Your task to perform on an android device: find snoozed emails in the gmail app Image 0: 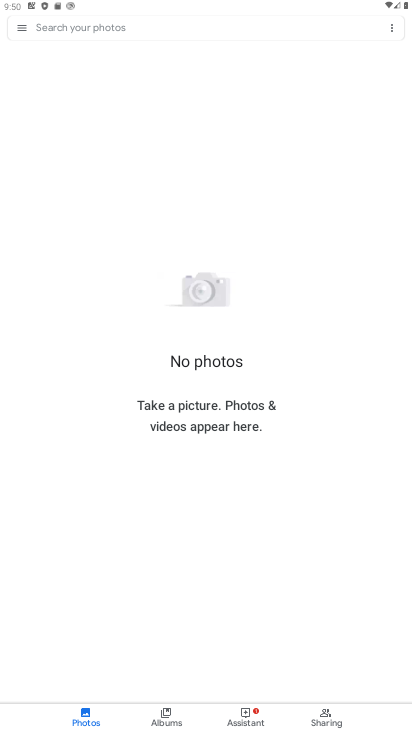
Step 0: press home button
Your task to perform on an android device: find snoozed emails in the gmail app Image 1: 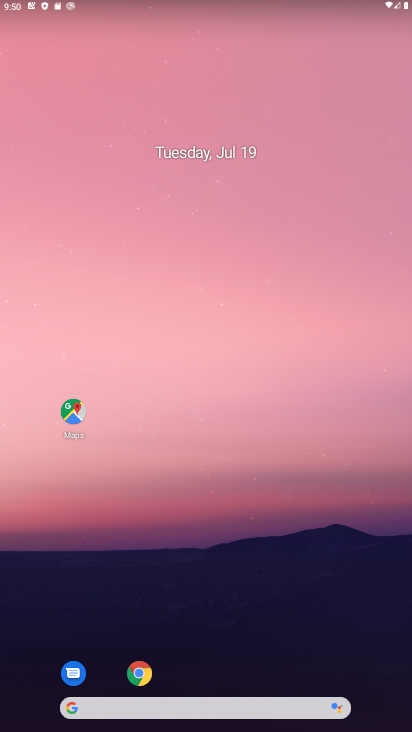
Step 1: drag from (235, 658) to (232, 240)
Your task to perform on an android device: find snoozed emails in the gmail app Image 2: 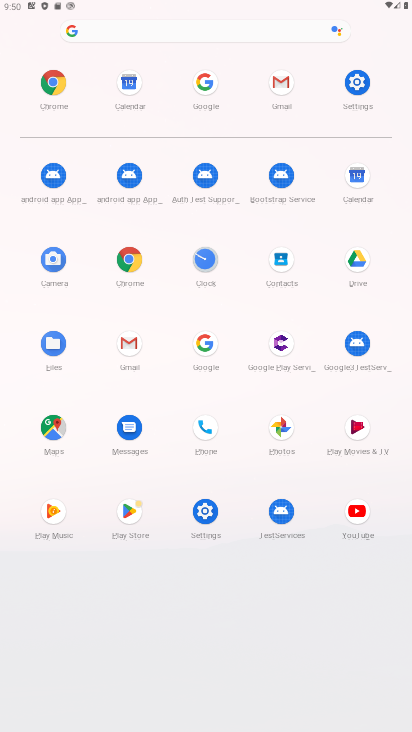
Step 2: click (279, 93)
Your task to perform on an android device: find snoozed emails in the gmail app Image 3: 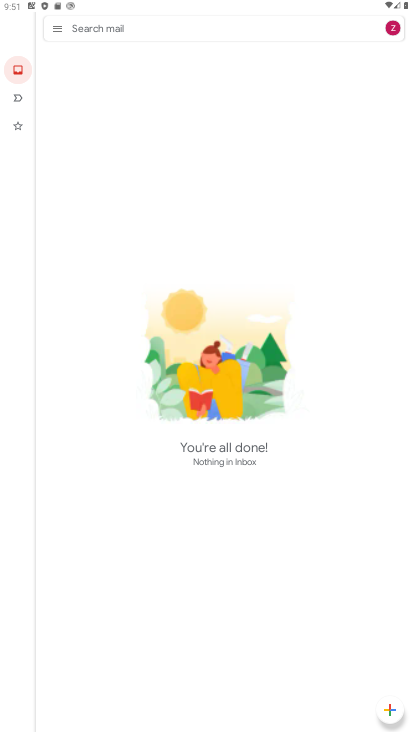
Step 3: press home button
Your task to perform on an android device: find snoozed emails in the gmail app Image 4: 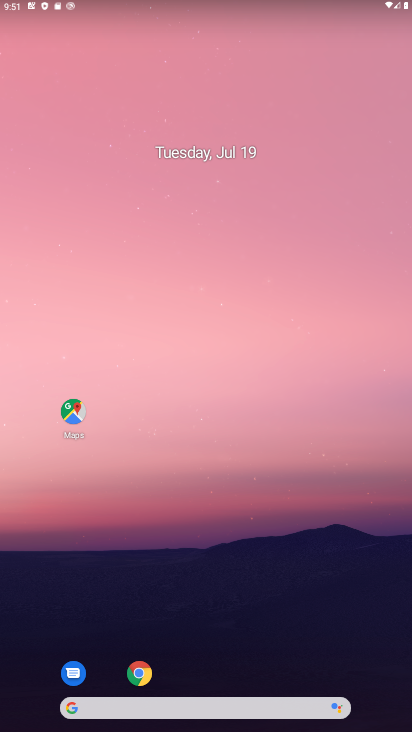
Step 4: drag from (208, 665) to (214, 94)
Your task to perform on an android device: find snoozed emails in the gmail app Image 5: 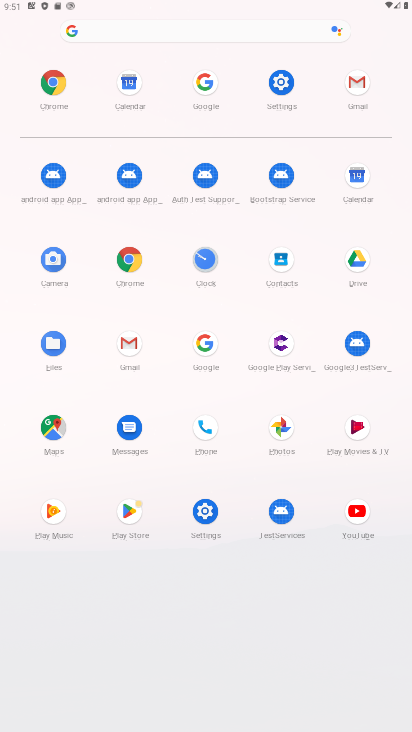
Step 5: click (144, 358)
Your task to perform on an android device: find snoozed emails in the gmail app Image 6: 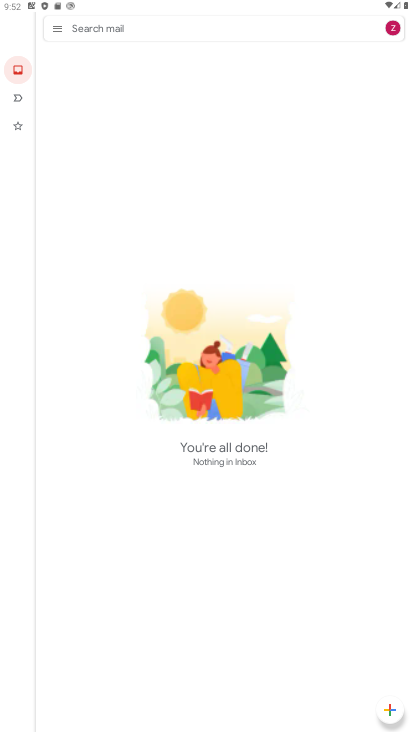
Step 6: click (58, 28)
Your task to perform on an android device: find snoozed emails in the gmail app Image 7: 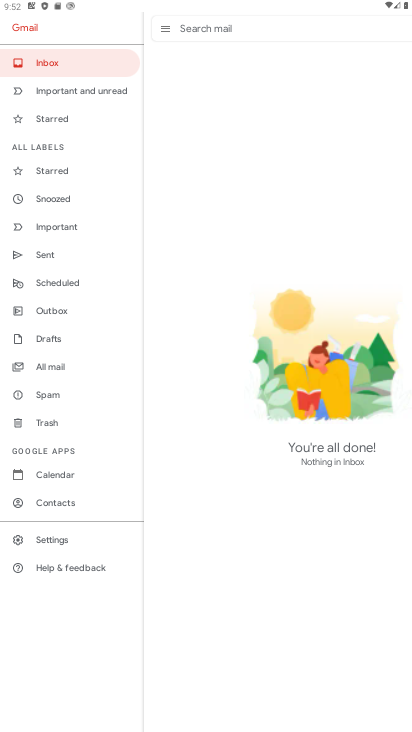
Step 7: click (63, 196)
Your task to perform on an android device: find snoozed emails in the gmail app Image 8: 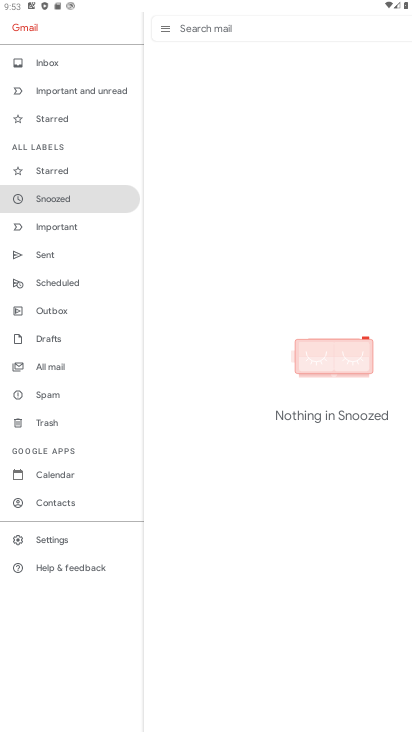
Step 8: task complete